Your task to perform on an android device: check battery use Image 0: 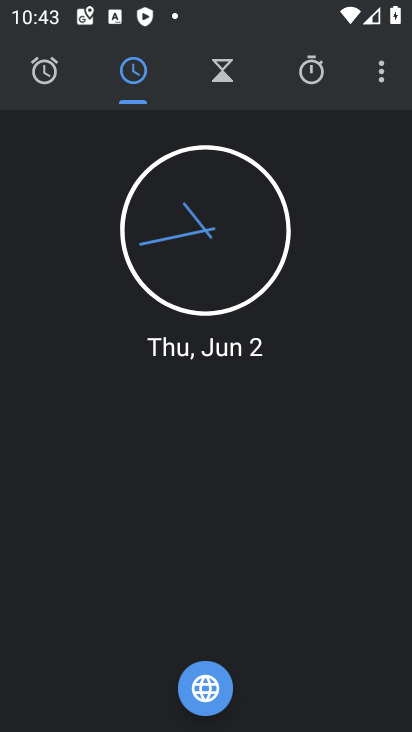
Step 0: press home button
Your task to perform on an android device: check battery use Image 1: 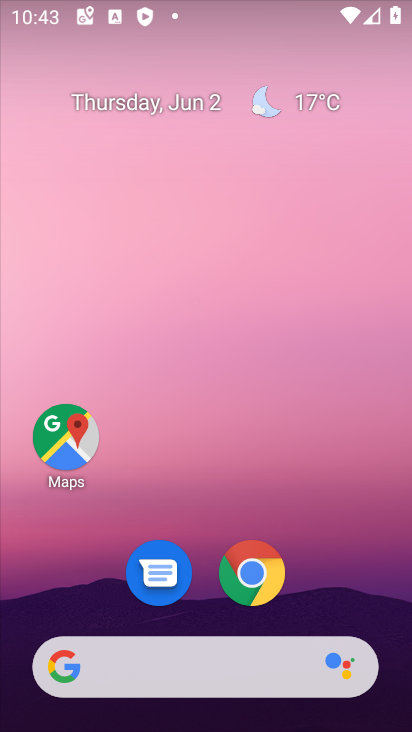
Step 1: drag from (357, 472) to (280, 1)
Your task to perform on an android device: check battery use Image 2: 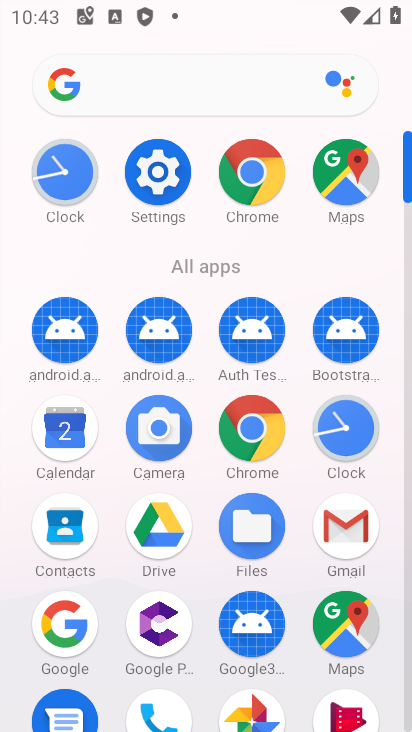
Step 2: click (159, 177)
Your task to perform on an android device: check battery use Image 3: 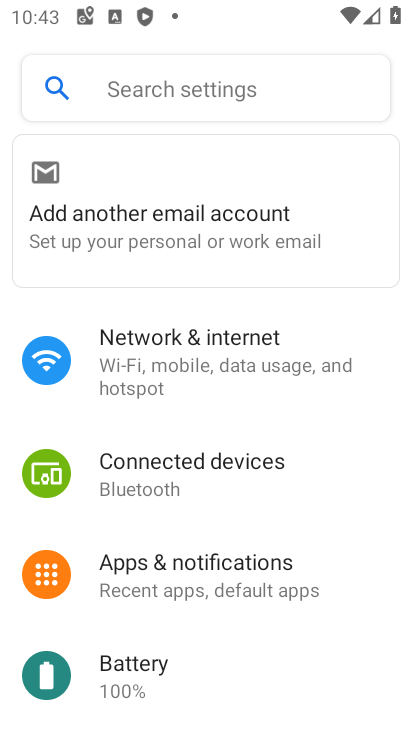
Step 3: click (153, 681)
Your task to perform on an android device: check battery use Image 4: 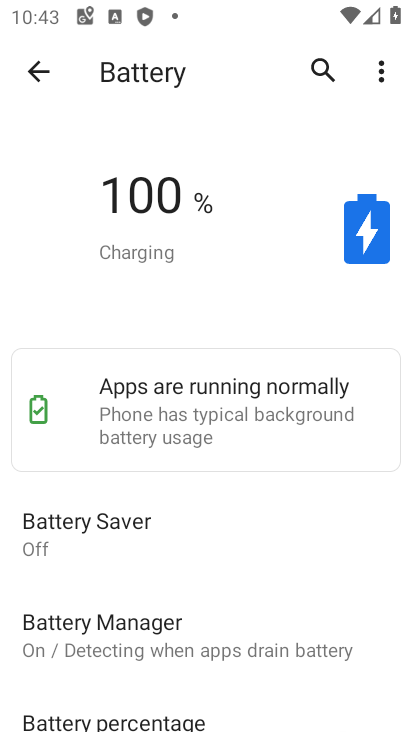
Step 4: task complete